Your task to perform on an android device: Open wifi settings Image 0: 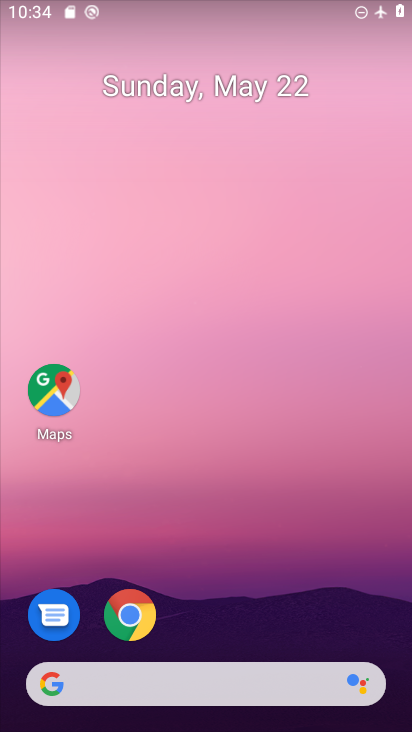
Step 0: drag from (247, 587) to (225, 101)
Your task to perform on an android device: Open wifi settings Image 1: 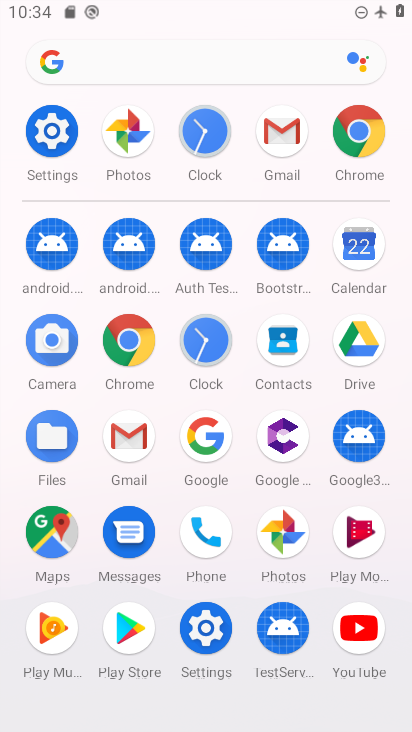
Step 1: click (60, 123)
Your task to perform on an android device: Open wifi settings Image 2: 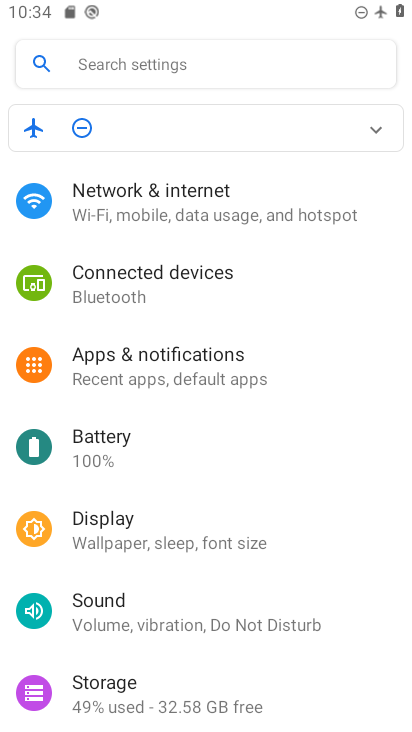
Step 2: click (131, 211)
Your task to perform on an android device: Open wifi settings Image 3: 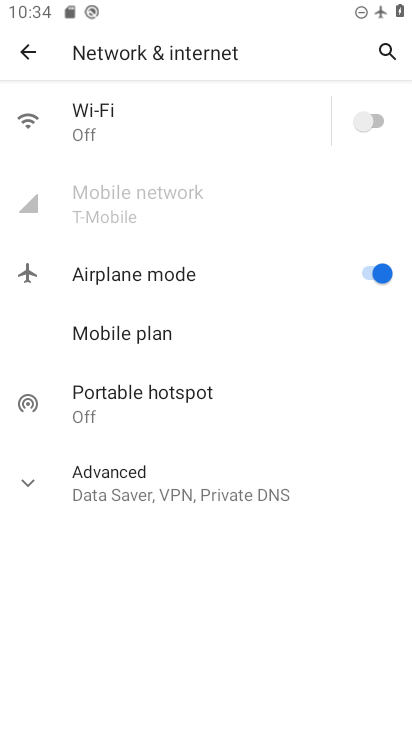
Step 3: click (156, 102)
Your task to perform on an android device: Open wifi settings Image 4: 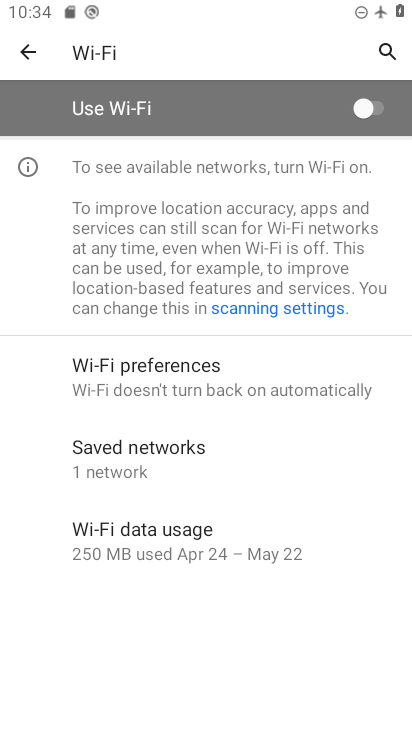
Step 4: click (392, 110)
Your task to perform on an android device: Open wifi settings Image 5: 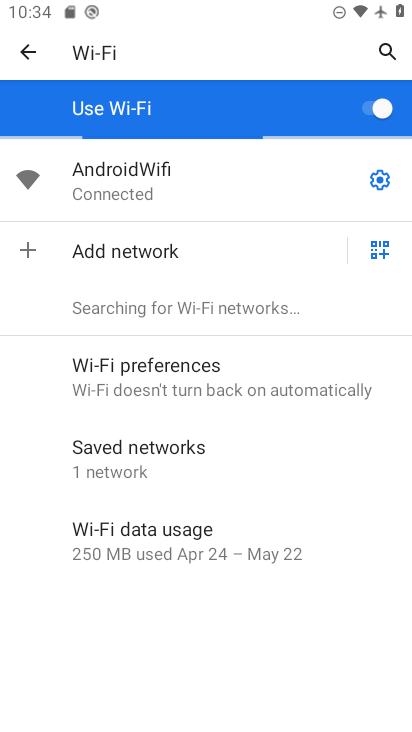
Step 5: click (385, 179)
Your task to perform on an android device: Open wifi settings Image 6: 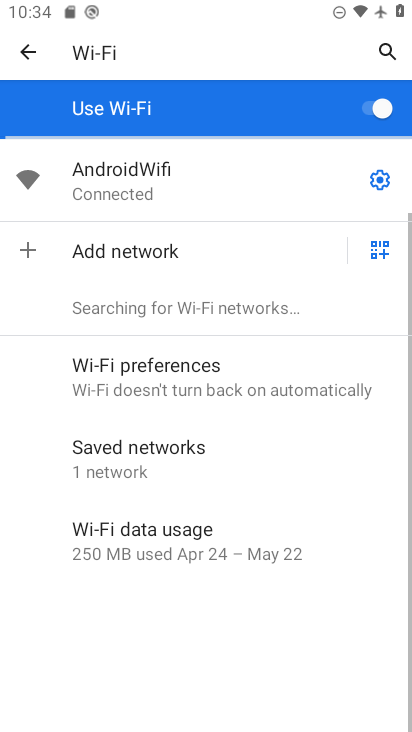
Step 6: click (383, 179)
Your task to perform on an android device: Open wifi settings Image 7: 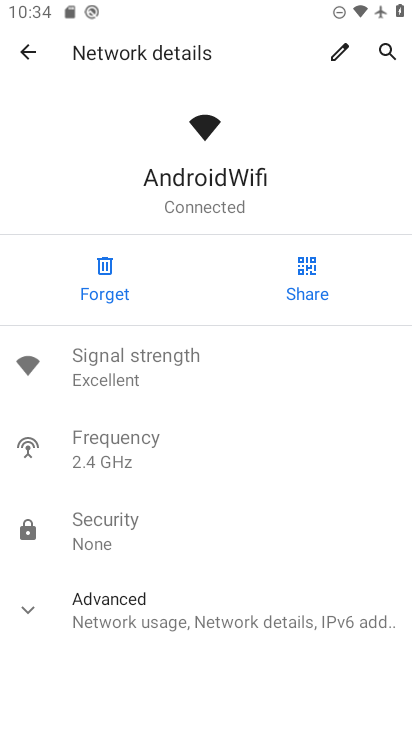
Step 7: task complete